Your task to perform on an android device: toggle translation in the chrome app Image 0: 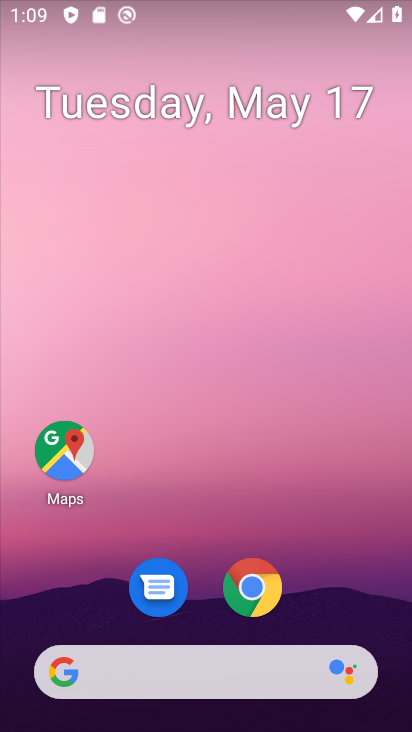
Step 0: drag from (344, 615) to (309, 118)
Your task to perform on an android device: toggle translation in the chrome app Image 1: 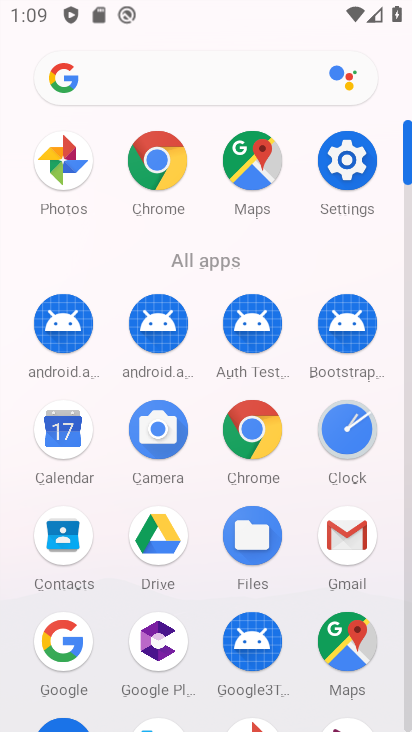
Step 1: click (261, 450)
Your task to perform on an android device: toggle translation in the chrome app Image 2: 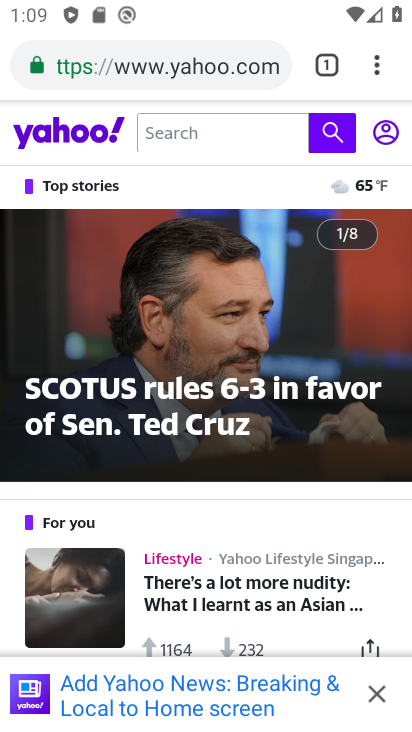
Step 2: drag from (386, 83) to (175, 628)
Your task to perform on an android device: toggle translation in the chrome app Image 3: 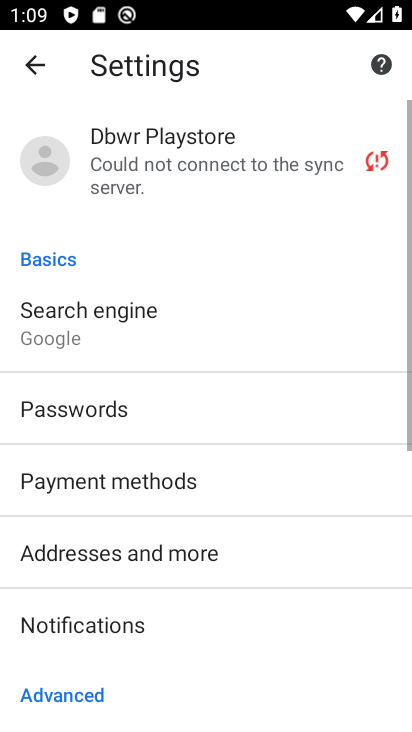
Step 3: drag from (202, 653) to (305, 295)
Your task to perform on an android device: toggle translation in the chrome app Image 4: 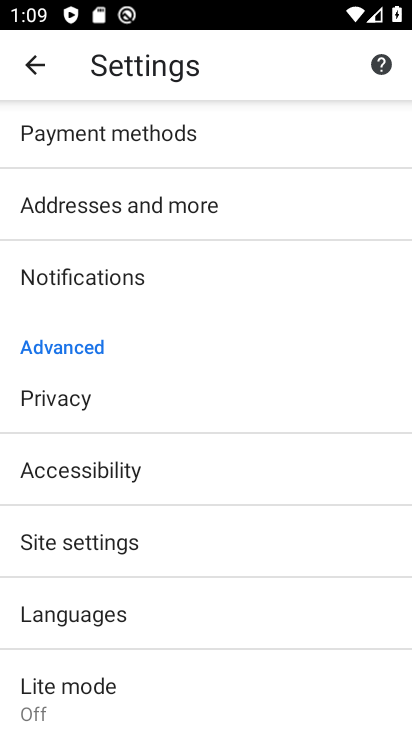
Step 4: click (155, 607)
Your task to perform on an android device: toggle translation in the chrome app Image 5: 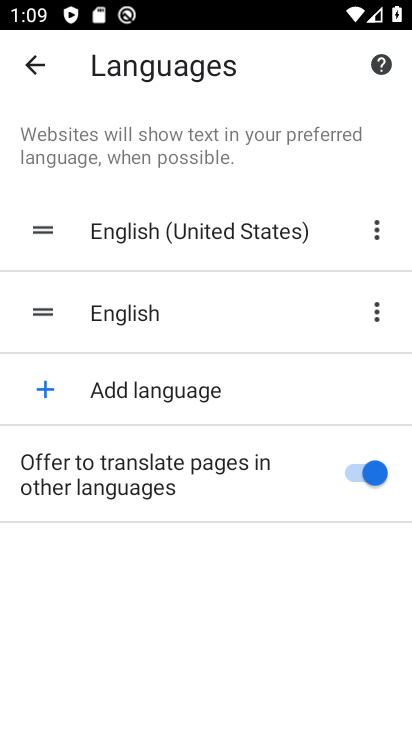
Step 5: click (353, 479)
Your task to perform on an android device: toggle translation in the chrome app Image 6: 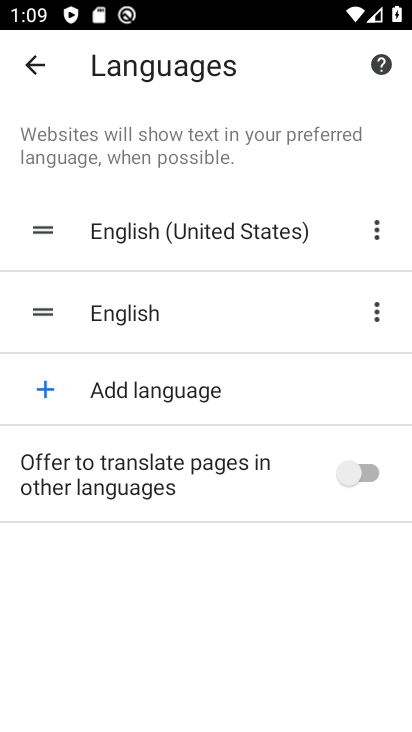
Step 6: task complete